Your task to perform on an android device: Search for pizza restaurants on Maps Image 0: 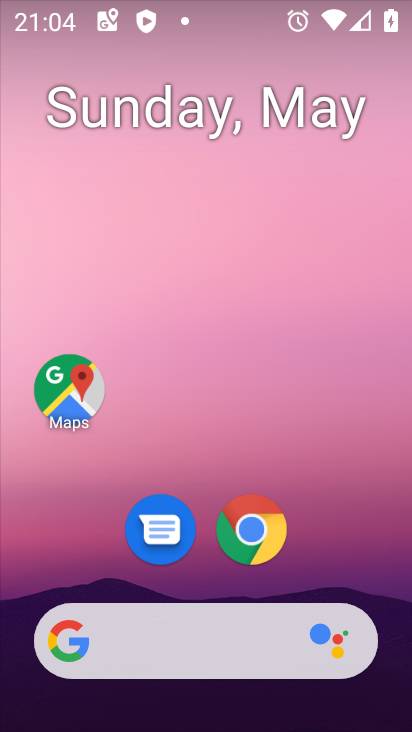
Step 0: click (62, 387)
Your task to perform on an android device: Search for pizza restaurants on Maps Image 1: 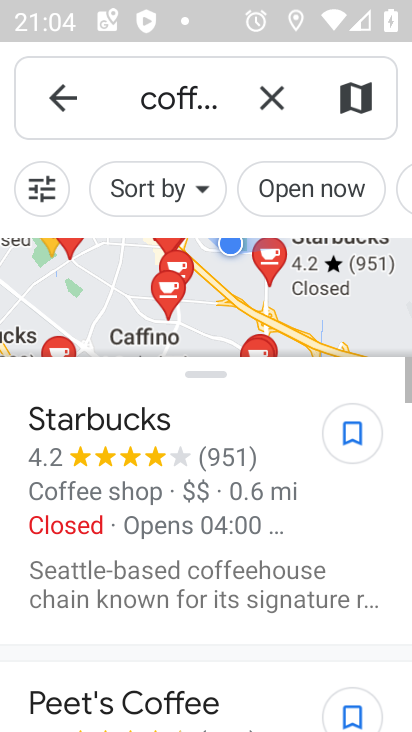
Step 1: click (267, 106)
Your task to perform on an android device: Search for pizza restaurants on Maps Image 2: 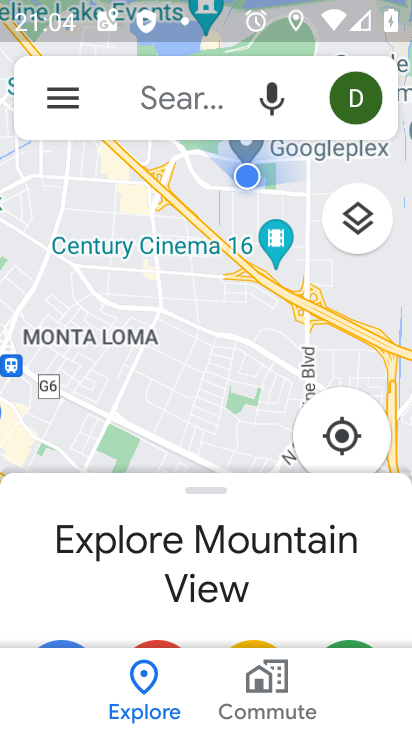
Step 2: click (157, 106)
Your task to perform on an android device: Search for pizza restaurants on Maps Image 3: 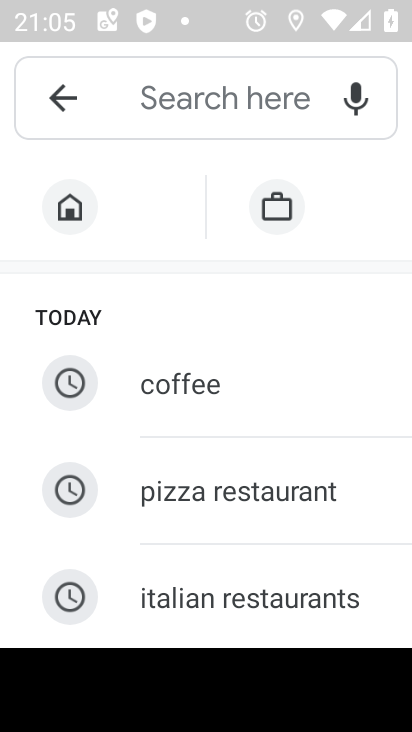
Step 3: type "pizza restaurant"
Your task to perform on an android device: Search for pizza restaurants on Maps Image 4: 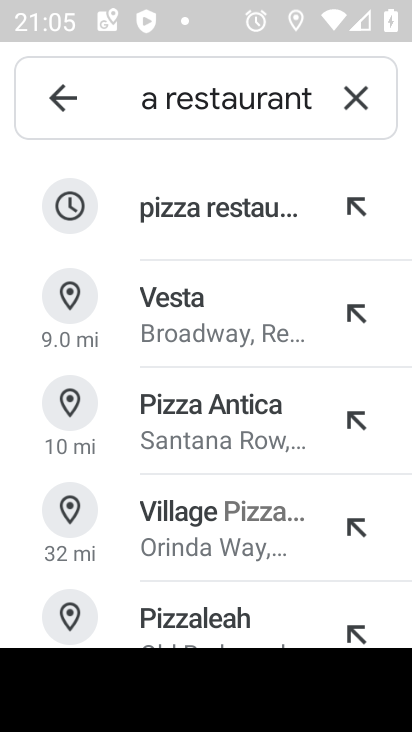
Step 4: click (206, 215)
Your task to perform on an android device: Search for pizza restaurants on Maps Image 5: 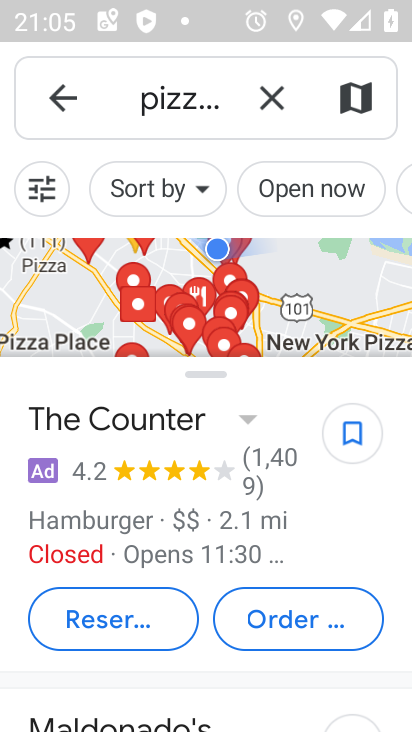
Step 5: task complete